Your task to perform on an android device: open sync settings in chrome Image 0: 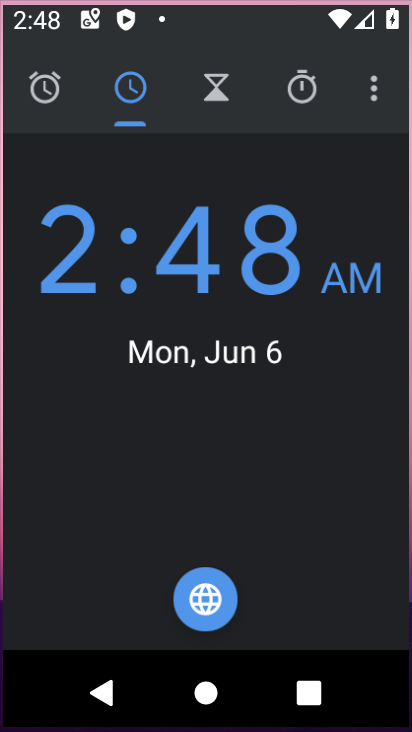
Step 0: drag from (267, 712) to (161, 33)
Your task to perform on an android device: open sync settings in chrome Image 1: 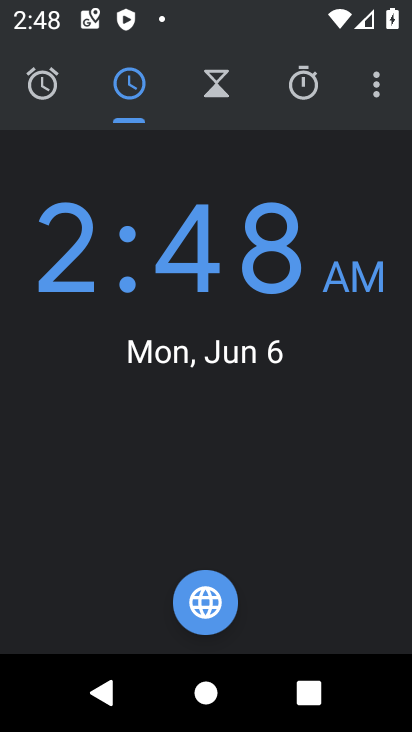
Step 1: press back button
Your task to perform on an android device: open sync settings in chrome Image 2: 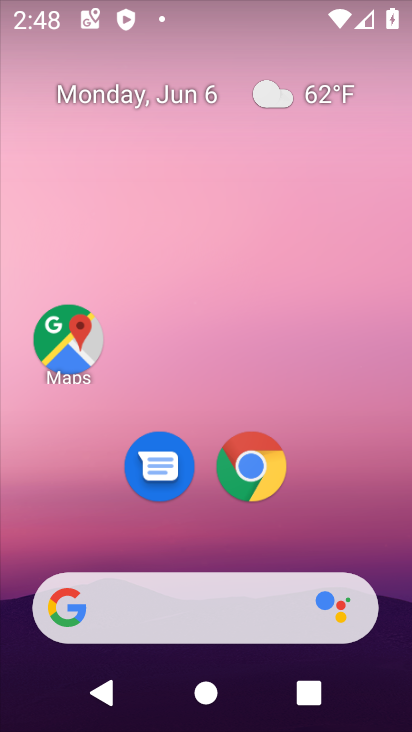
Step 2: drag from (246, 725) to (226, 48)
Your task to perform on an android device: open sync settings in chrome Image 3: 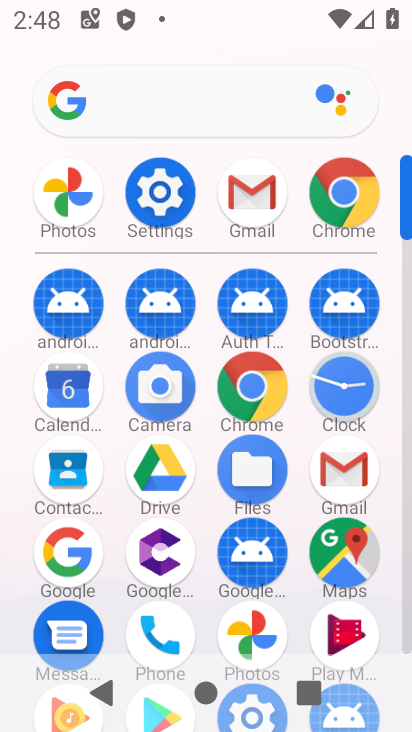
Step 3: click (326, 202)
Your task to perform on an android device: open sync settings in chrome Image 4: 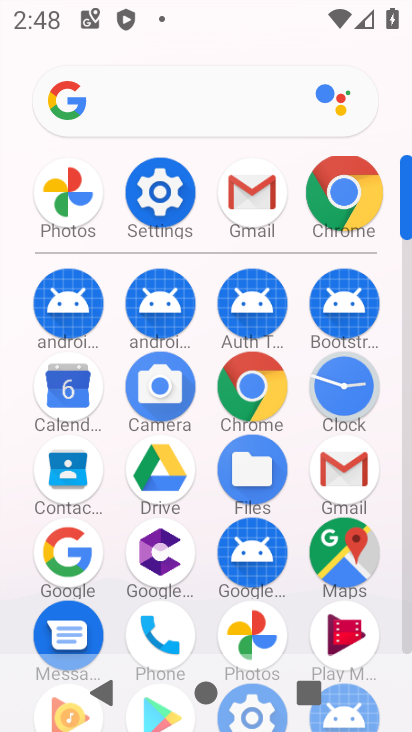
Step 4: click (329, 201)
Your task to perform on an android device: open sync settings in chrome Image 5: 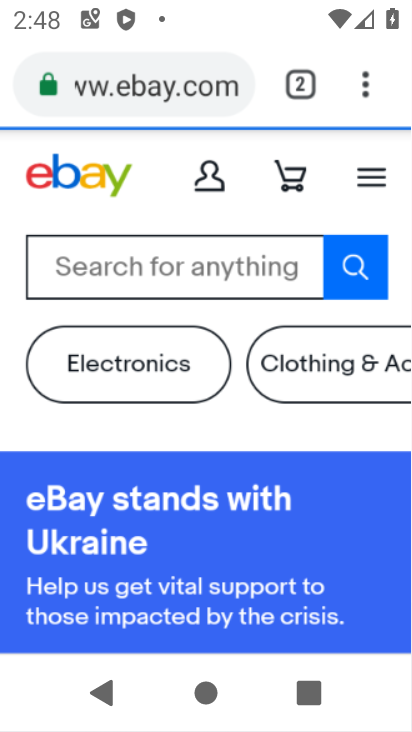
Step 5: click (332, 205)
Your task to perform on an android device: open sync settings in chrome Image 6: 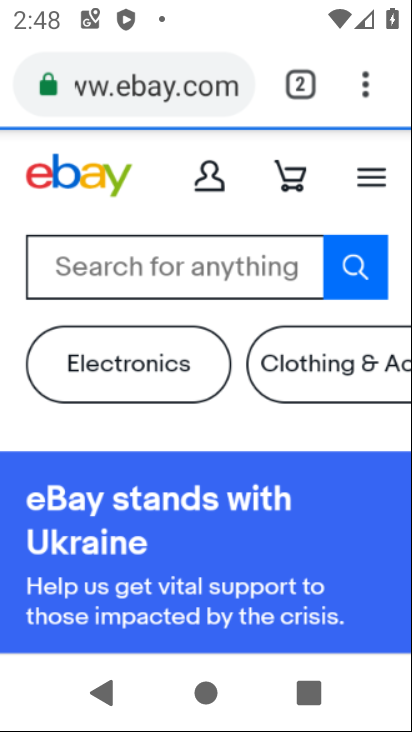
Step 6: click (336, 205)
Your task to perform on an android device: open sync settings in chrome Image 7: 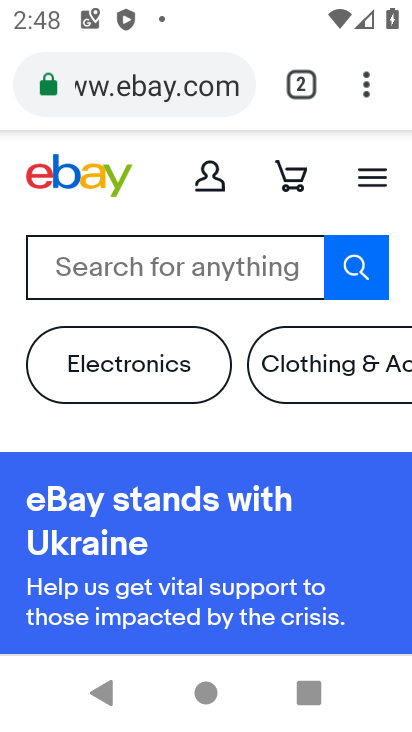
Step 7: click (367, 84)
Your task to perform on an android device: open sync settings in chrome Image 8: 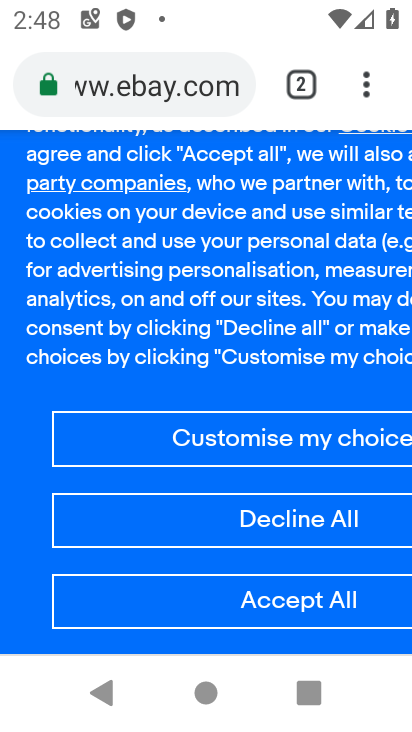
Step 8: click (367, 92)
Your task to perform on an android device: open sync settings in chrome Image 9: 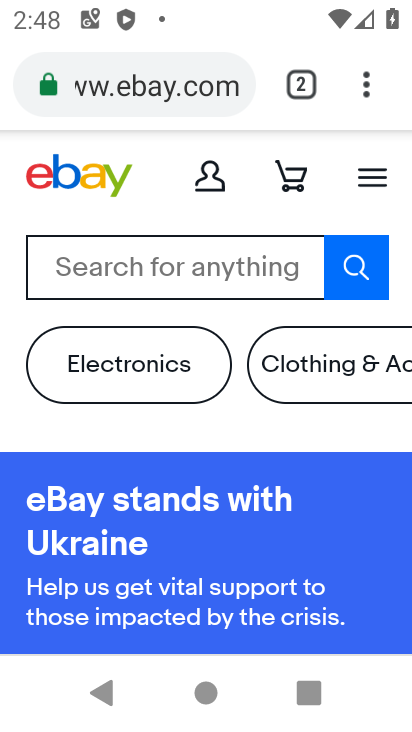
Step 9: click (376, 85)
Your task to perform on an android device: open sync settings in chrome Image 10: 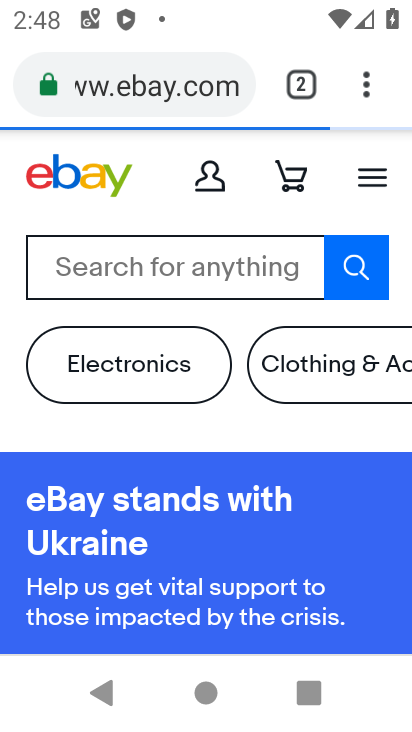
Step 10: click (359, 86)
Your task to perform on an android device: open sync settings in chrome Image 11: 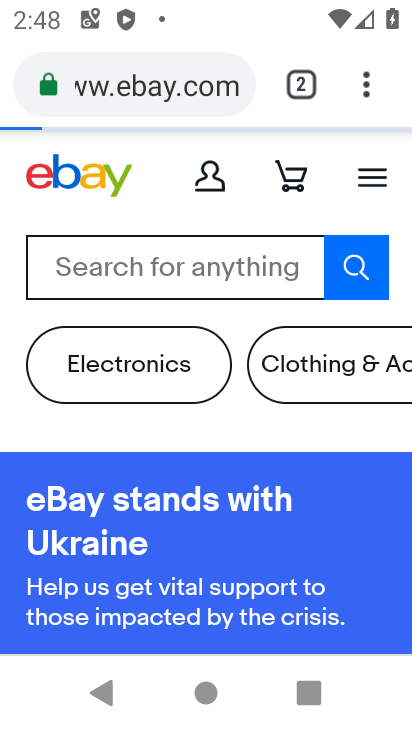
Step 11: drag from (361, 91) to (96, 503)
Your task to perform on an android device: open sync settings in chrome Image 12: 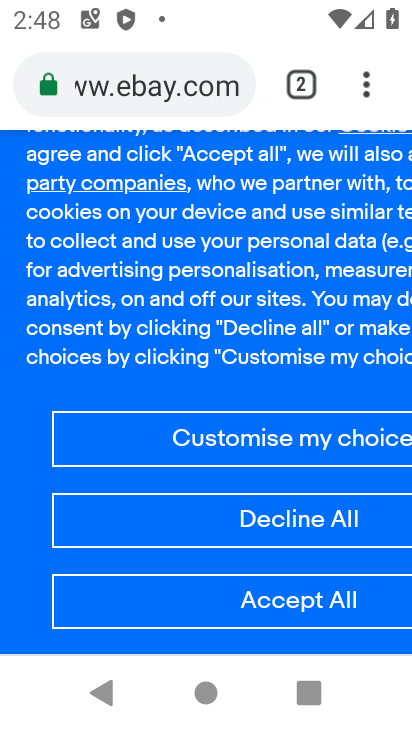
Step 12: click (97, 493)
Your task to perform on an android device: open sync settings in chrome Image 13: 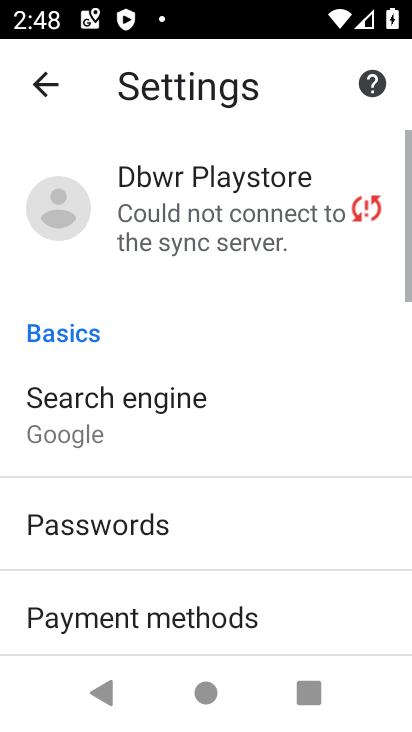
Step 13: drag from (196, 524) to (213, 148)
Your task to perform on an android device: open sync settings in chrome Image 14: 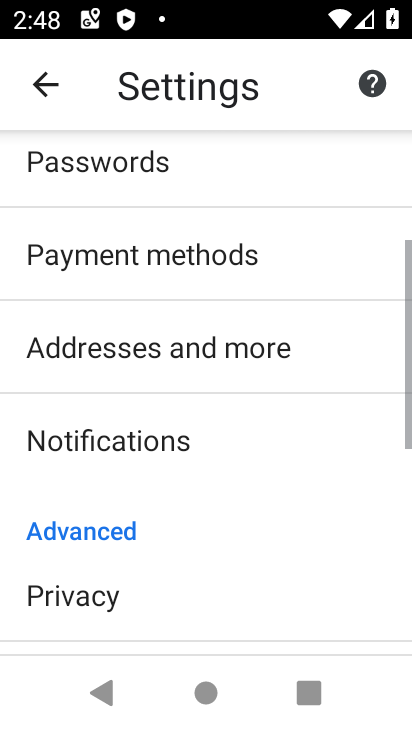
Step 14: drag from (186, 439) to (247, 77)
Your task to perform on an android device: open sync settings in chrome Image 15: 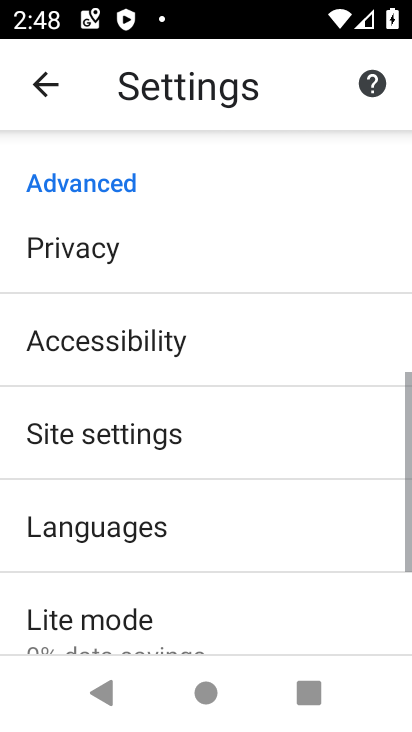
Step 15: drag from (199, 182) to (193, 80)
Your task to perform on an android device: open sync settings in chrome Image 16: 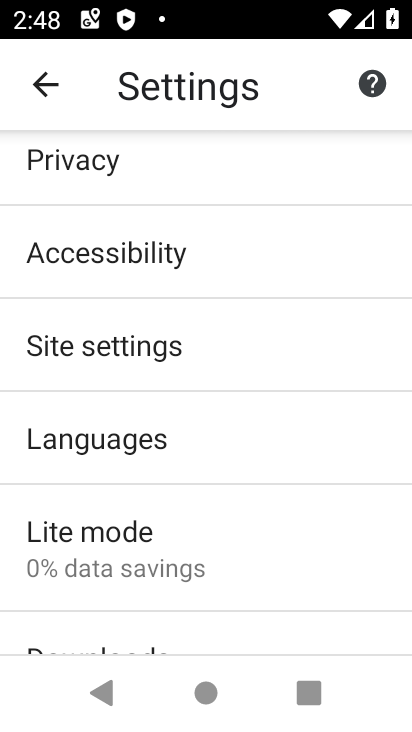
Step 16: click (86, 354)
Your task to perform on an android device: open sync settings in chrome Image 17: 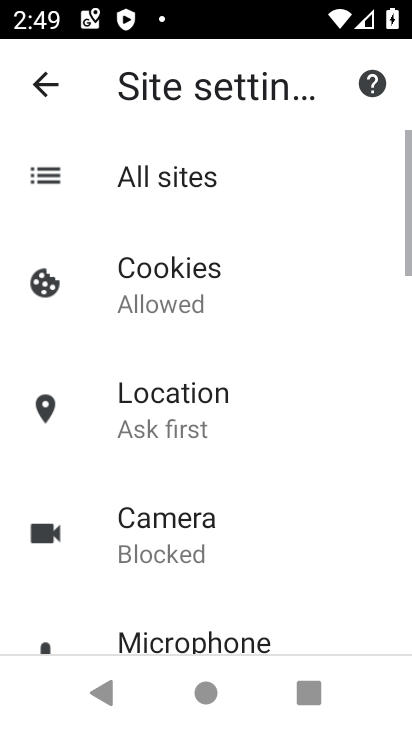
Step 17: drag from (167, 519) to (155, 135)
Your task to perform on an android device: open sync settings in chrome Image 18: 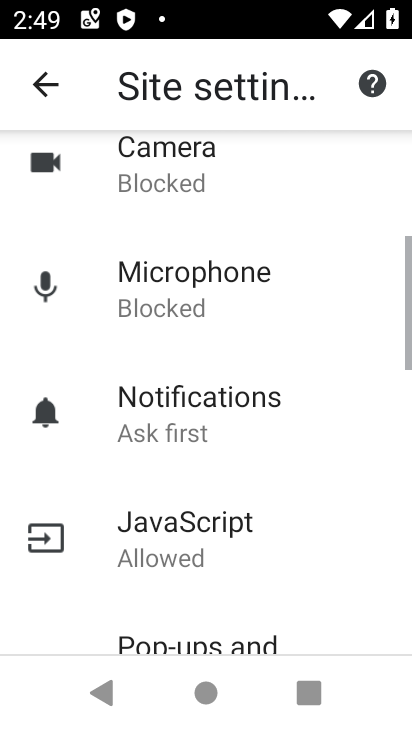
Step 18: drag from (205, 526) to (203, 137)
Your task to perform on an android device: open sync settings in chrome Image 19: 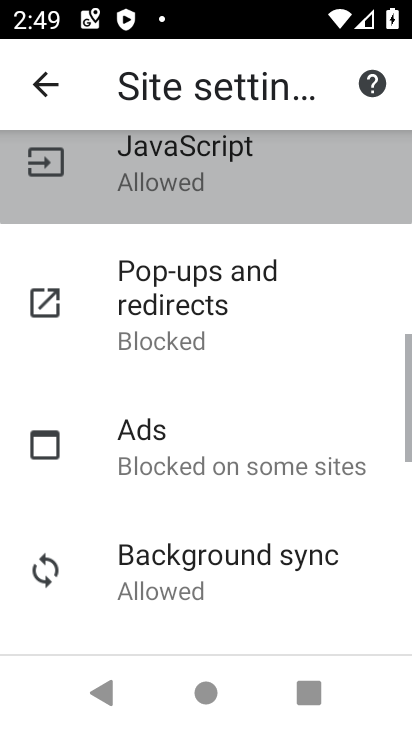
Step 19: drag from (176, 469) to (176, 299)
Your task to perform on an android device: open sync settings in chrome Image 20: 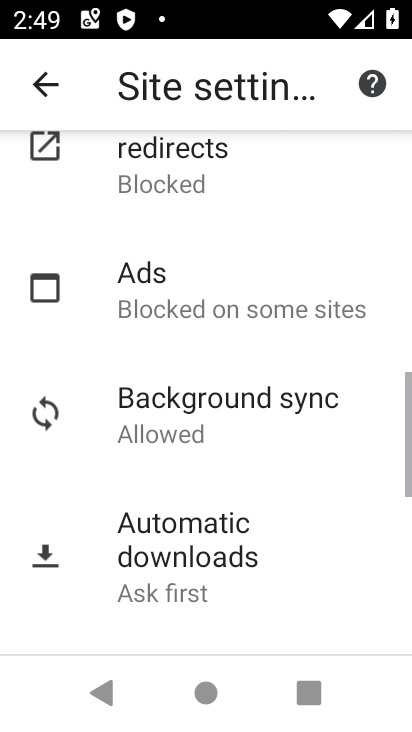
Step 20: drag from (185, 391) to (186, 263)
Your task to perform on an android device: open sync settings in chrome Image 21: 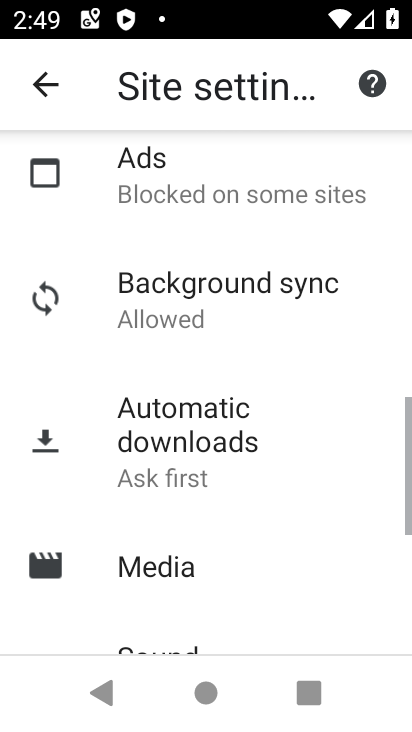
Step 21: drag from (212, 444) to (209, 301)
Your task to perform on an android device: open sync settings in chrome Image 22: 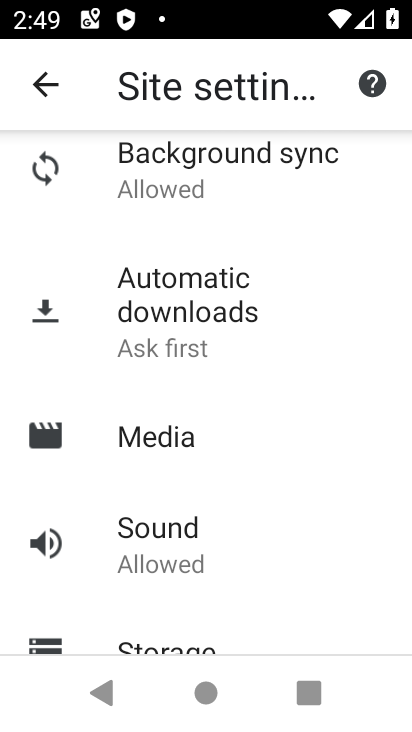
Step 22: click (152, 170)
Your task to perform on an android device: open sync settings in chrome Image 23: 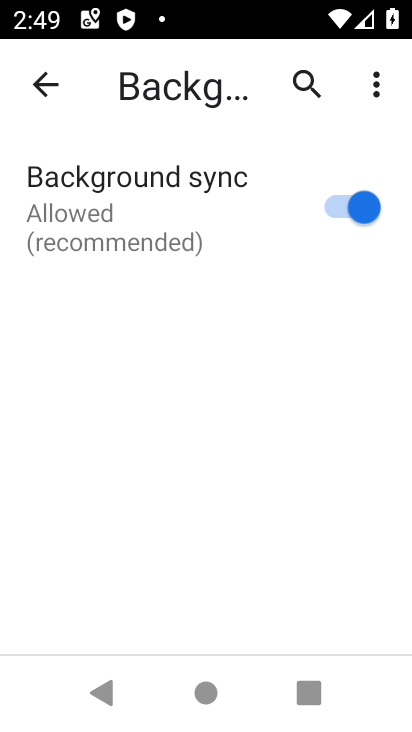
Step 23: task complete